Your task to perform on an android device: open app "Life360: Find Family & Friends" (install if not already installed) Image 0: 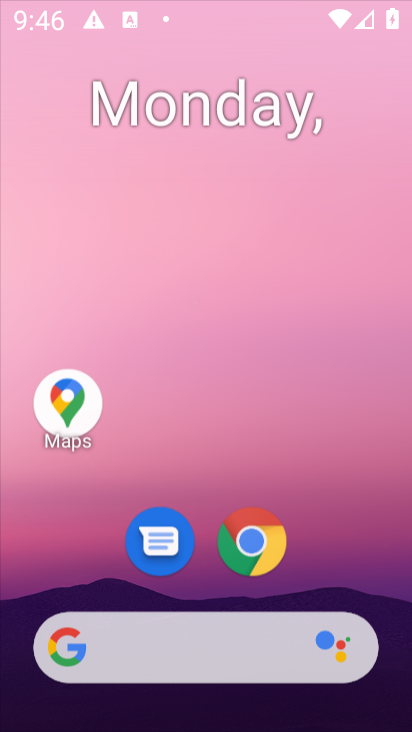
Step 0: press home button
Your task to perform on an android device: open app "Life360: Find Family & Friends" (install if not already installed) Image 1: 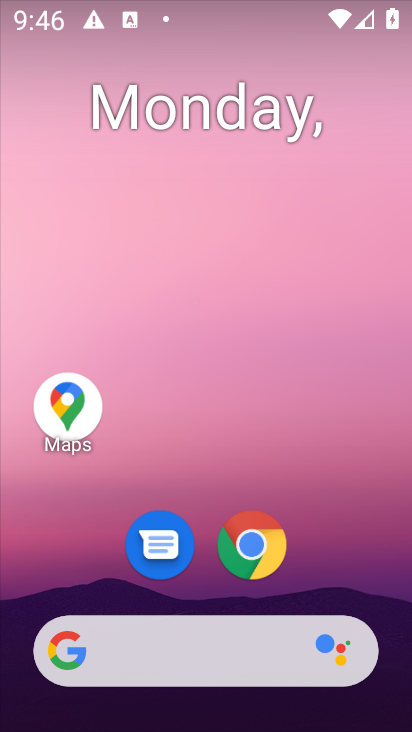
Step 1: drag from (372, 596) to (337, 57)
Your task to perform on an android device: open app "Life360: Find Family & Friends" (install if not already installed) Image 2: 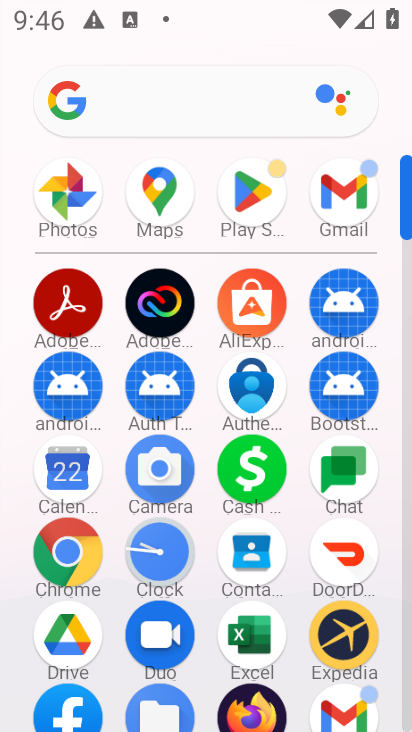
Step 2: click (245, 202)
Your task to perform on an android device: open app "Life360: Find Family & Friends" (install if not already installed) Image 3: 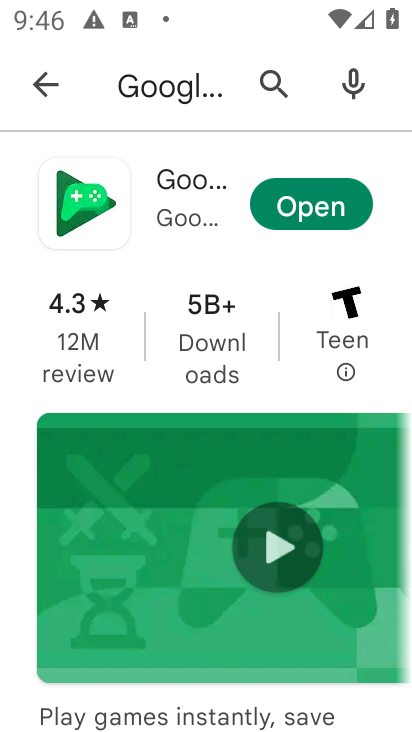
Step 3: press back button
Your task to perform on an android device: open app "Life360: Find Family & Friends" (install if not already installed) Image 4: 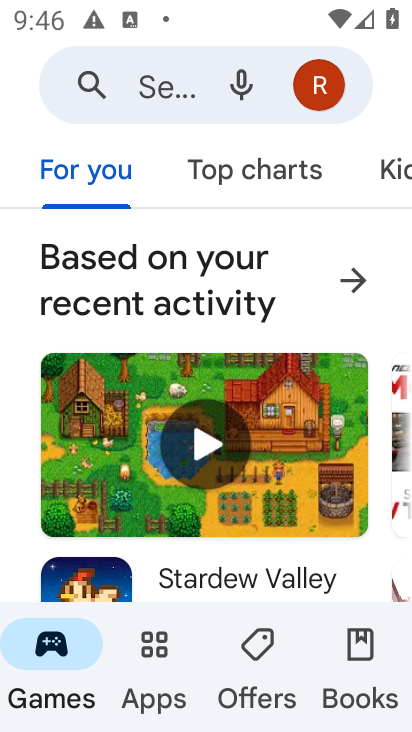
Step 4: click (169, 97)
Your task to perform on an android device: open app "Life360: Find Family & Friends" (install if not already installed) Image 5: 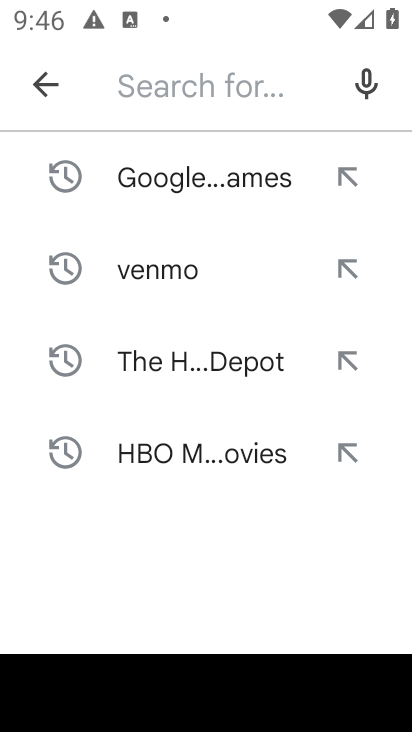
Step 5: type "Life360: Find Family & Friends"
Your task to perform on an android device: open app "Life360: Find Family & Friends" (install if not already installed) Image 6: 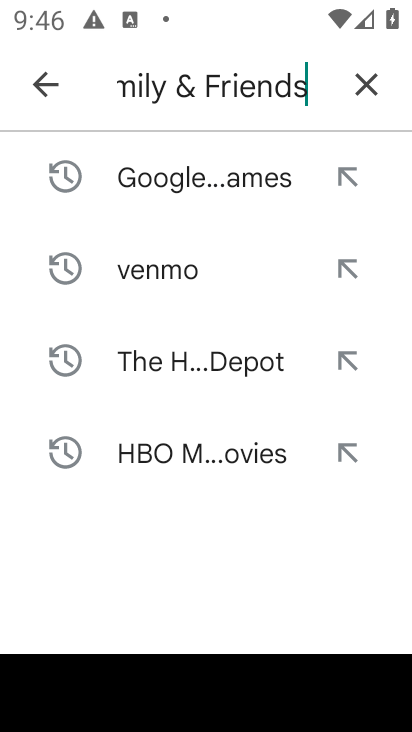
Step 6: press enter
Your task to perform on an android device: open app "Life360: Find Family & Friends" (install if not already installed) Image 7: 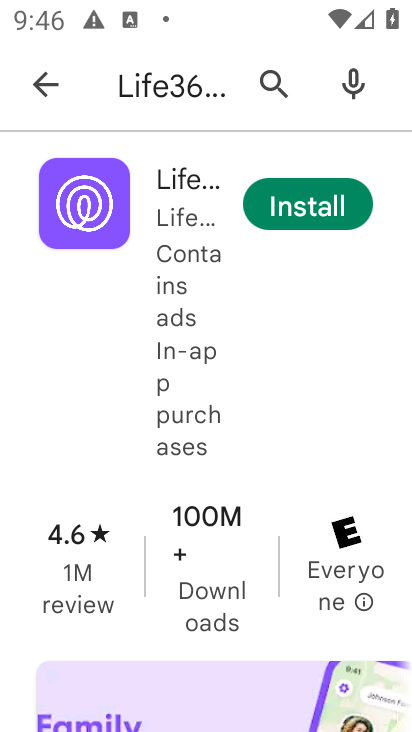
Step 7: click (306, 200)
Your task to perform on an android device: open app "Life360: Find Family & Friends" (install if not already installed) Image 8: 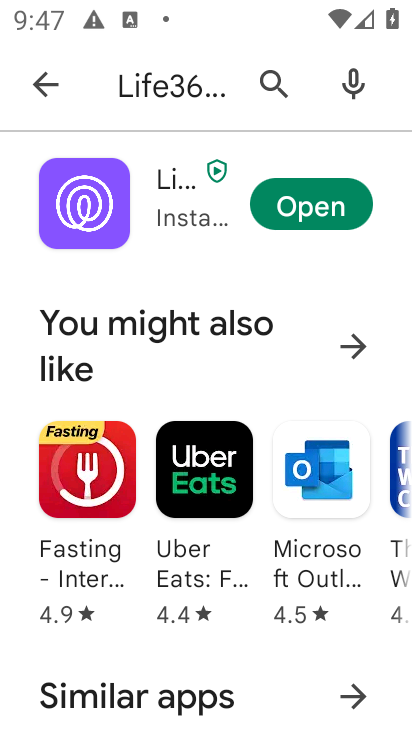
Step 8: click (317, 204)
Your task to perform on an android device: open app "Life360: Find Family & Friends" (install if not already installed) Image 9: 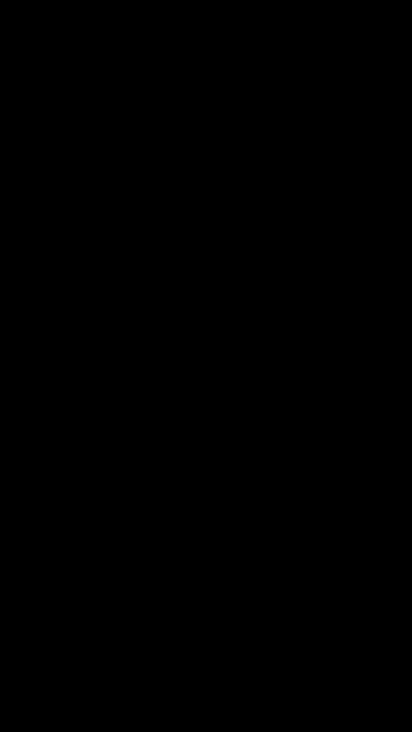
Step 9: task complete